Your task to perform on an android device: Search for seafood restaurants on Google Maps Image 0: 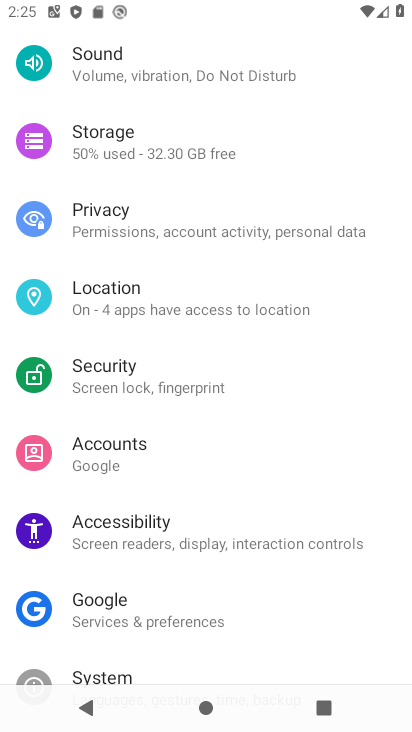
Step 0: press home button
Your task to perform on an android device: Search for seafood restaurants on Google Maps Image 1: 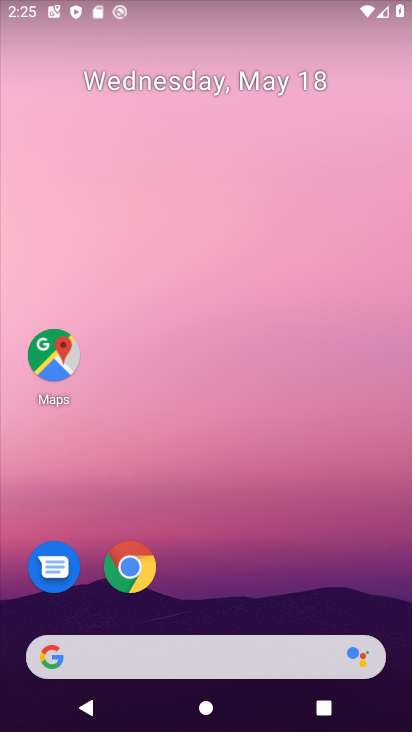
Step 1: click (54, 358)
Your task to perform on an android device: Search for seafood restaurants on Google Maps Image 2: 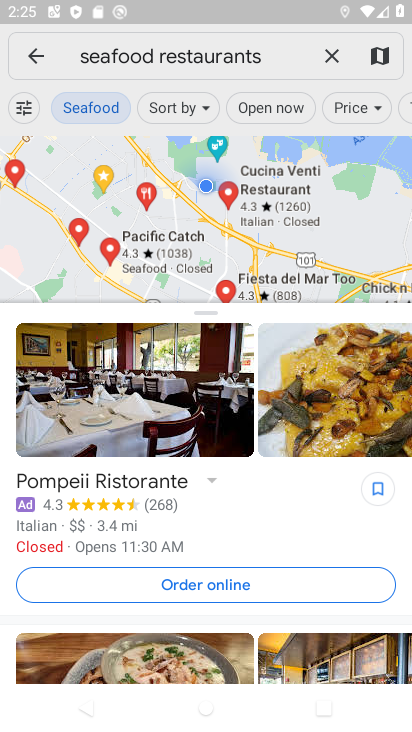
Step 2: task complete